Your task to perform on an android device: turn on wifi Image 0: 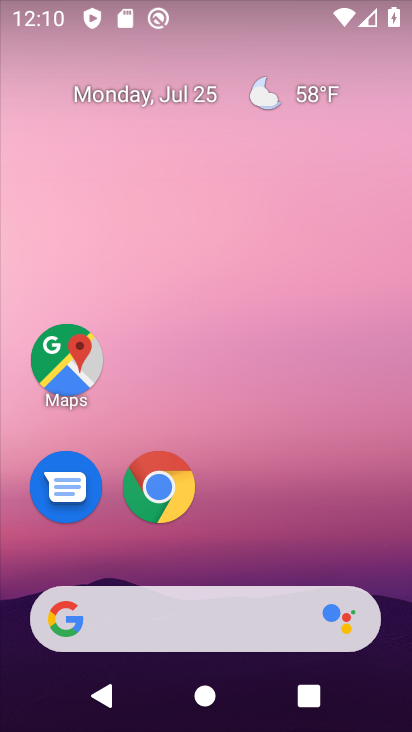
Step 0: drag from (166, 7) to (218, 581)
Your task to perform on an android device: turn on wifi Image 1: 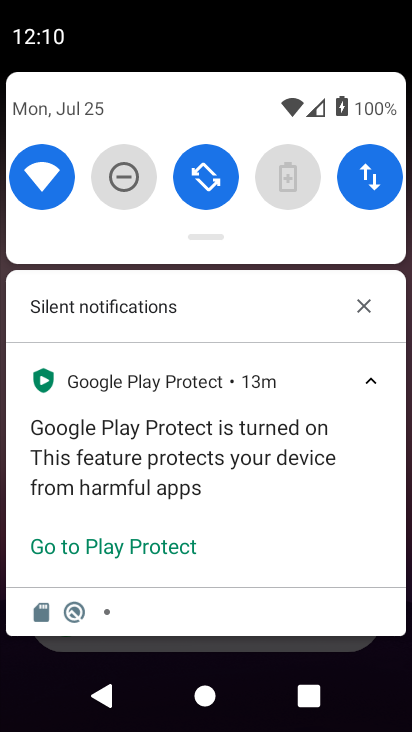
Step 1: task complete